Your task to perform on an android device: open app "Life360: Find Family & Friends" Image 0: 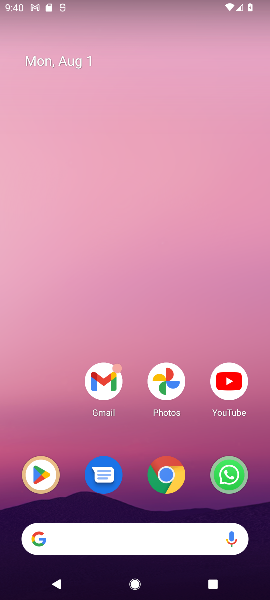
Step 0: drag from (130, 530) to (153, 61)
Your task to perform on an android device: open app "Life360: Find Family & Friends" Image 1: 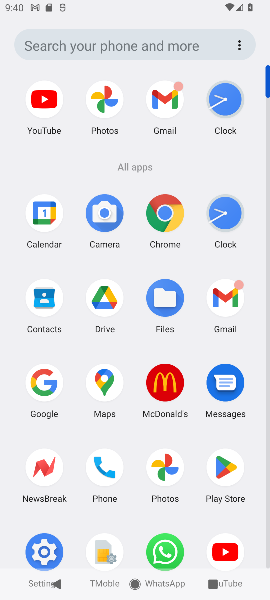
Step 1: click (235, 476)
Your task to perform on an android device: open app "Life360: Find Family & Friends" Image 2: 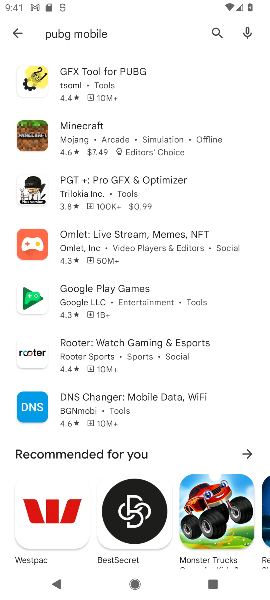
Step 2: click (18, 30)
Your task to perform on an android device: open app "Life360: Find Family & Friends" Image 3: 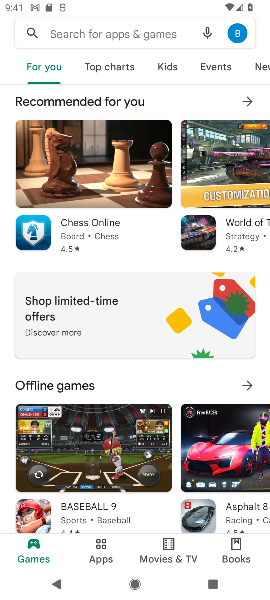
Step 3: click (67, 33)
Your task to perform on an android device: open app "Life360: Find Family & Friends" Image 4: 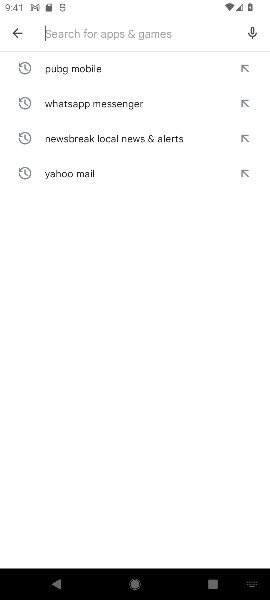
Step 4: type "Life360"
Your task to perform on an android device: open app "Life360: Find Family & Friends" Image 5: 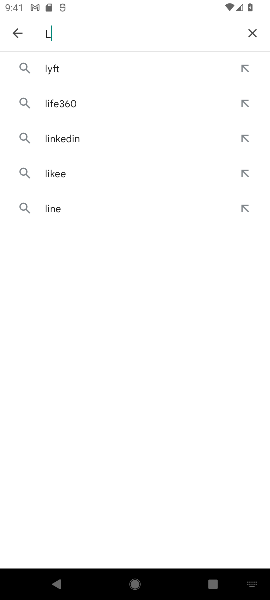
Step 5: type ""
Your task to perform on an android device: open app "Life360: Find Family & Friends" Image 6: 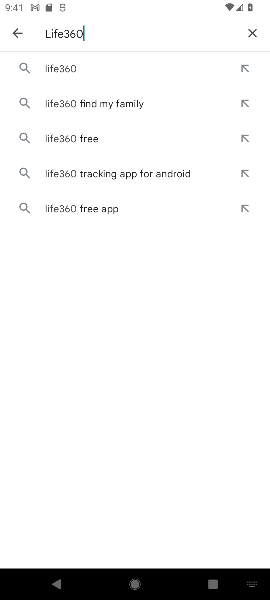
Step 6: click (74, 62)
Your task to perform on an android device: open app "Life360: Find Family & Friends" Image 7: 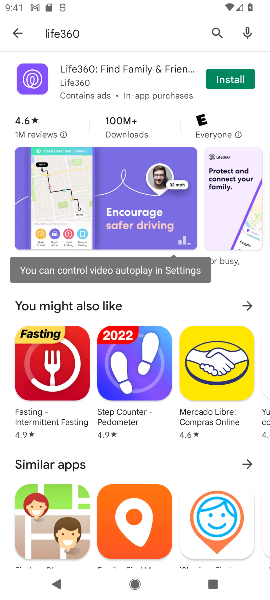
Step 7: task complete